Your task to perform on an android device: Open CNN.com Image 0: 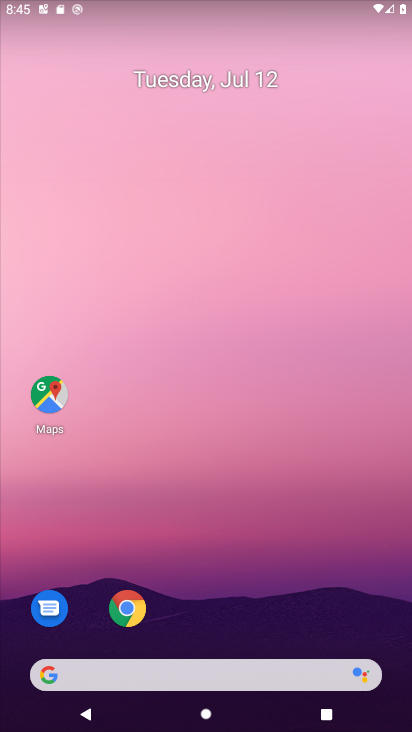
Step 0: click (126, 599)
Your task to perform on an android device: Open CNN.com Image 1: 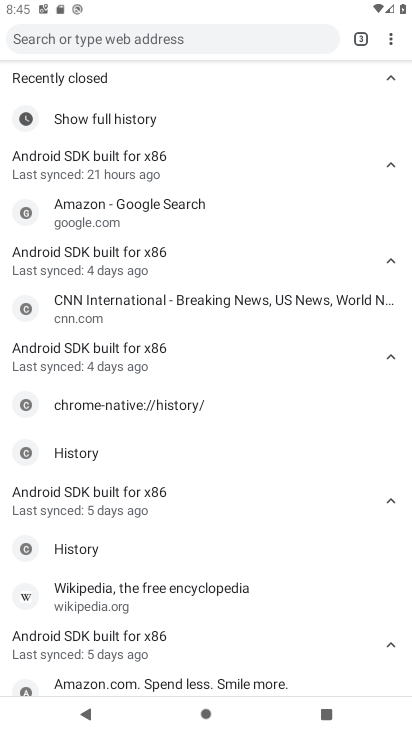
Step 1: drag from (392, 35) to (335, 75)
Your task to perform on an android device: Open CNN.com Image 2: 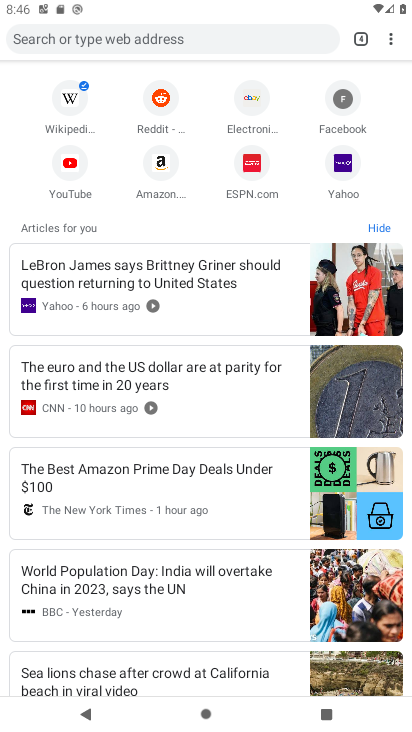
Step 2: click (169, 37)
Your task to perform on an android device: Open CNN.com Image 3: 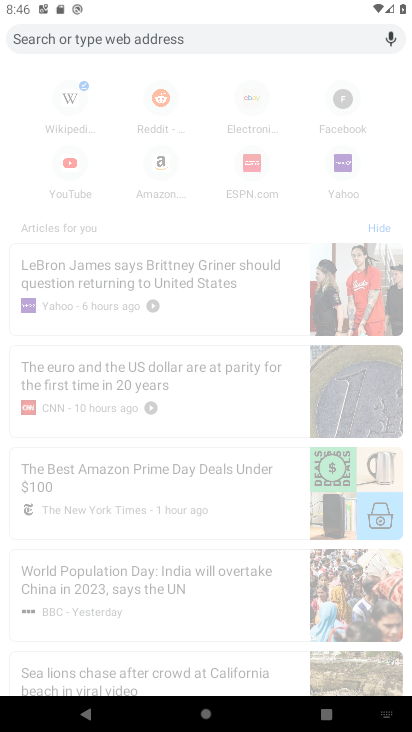
Step 3: type "cnn.com"
Your task to perform on an android device: Open CNN.com Image 4: 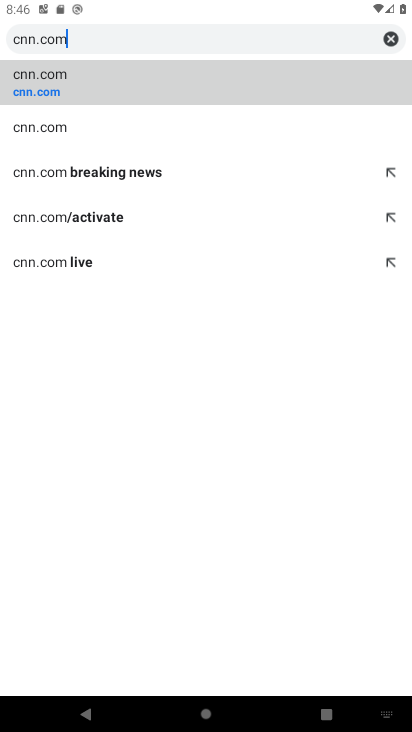
Step 4: click (152, 89)
Your task to perform on an android device: Open CNN.com Image 5: 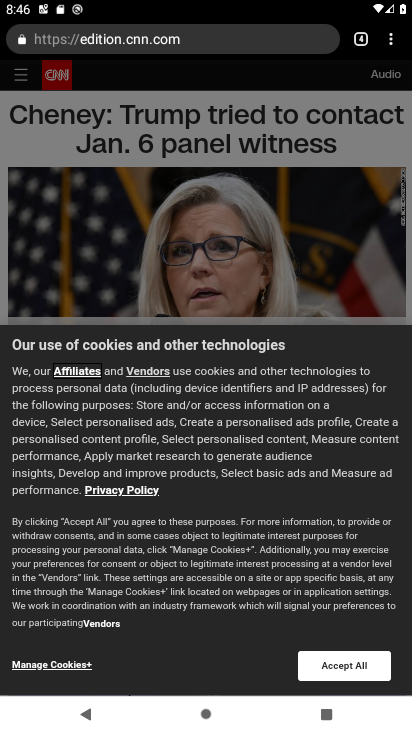
Step 5: click (345, 674)
Your task to perform on an android device: Open CNN.com Image 6: 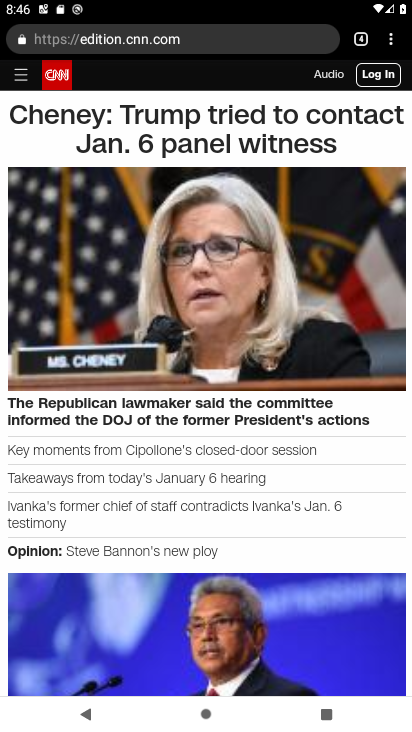
Step 6: task complete